Your task to perform on an android device: Search for Mexican restaurants on Maps Image 0: 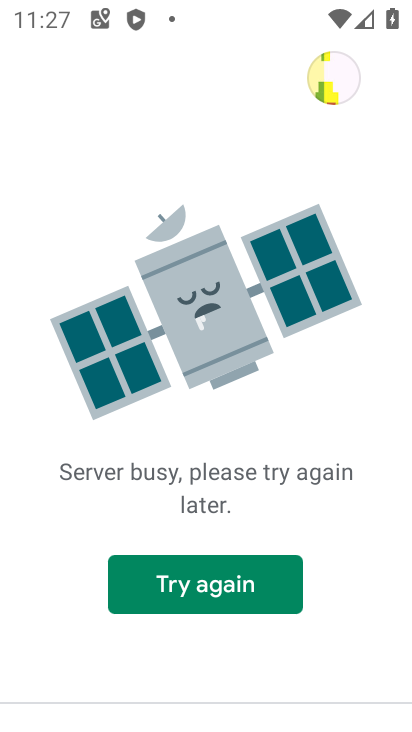
Step 0: click (196, 620)
Your task to perform on an android device: Search for Mexican restaurants on Maps Image 1: 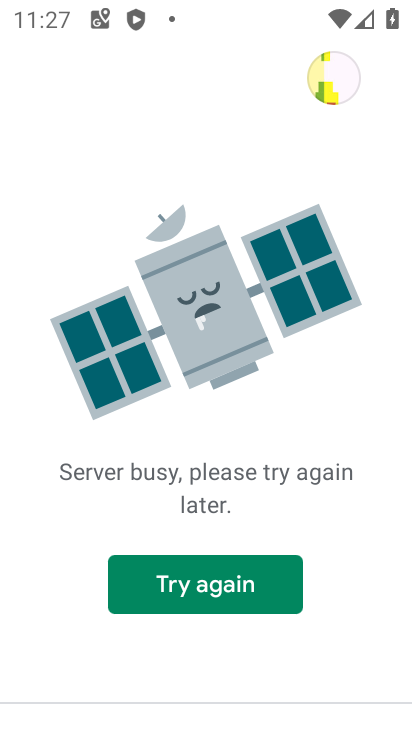
Step 1: task complete